Your task to perform on an android device: find snoozed emails in the gmail app Image 0: 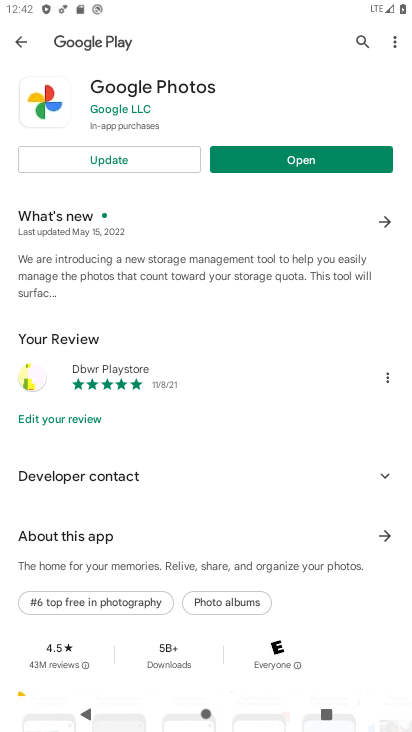
Step 0: press home button
Your task to perform on an android device: find snoozed emails in the gmail app Image 1: 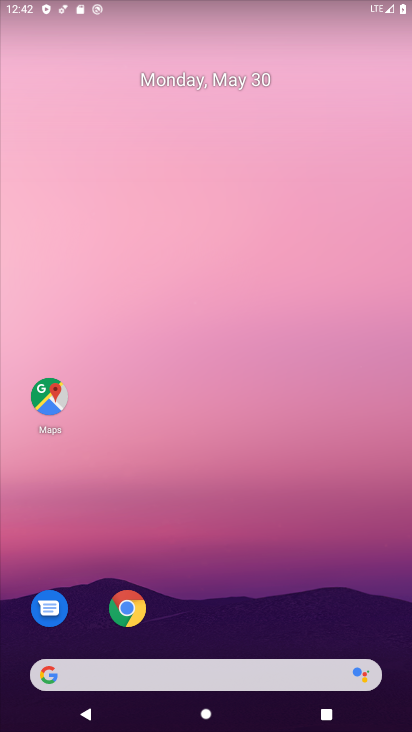
Step 1: drag from (203, 624) to (233, 29)
Your task to perform on an android device: find snoozed emails in the gmail app Image 2: 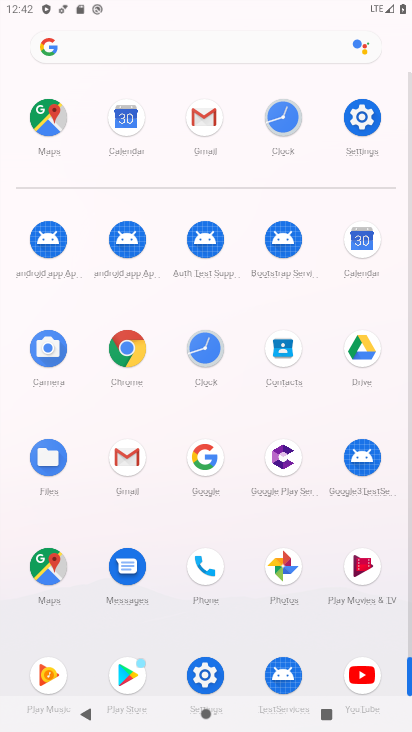
Step 2: click (122, 465)
Your task to perform on an android device: find snoozed emails in the gmail app Image 3: 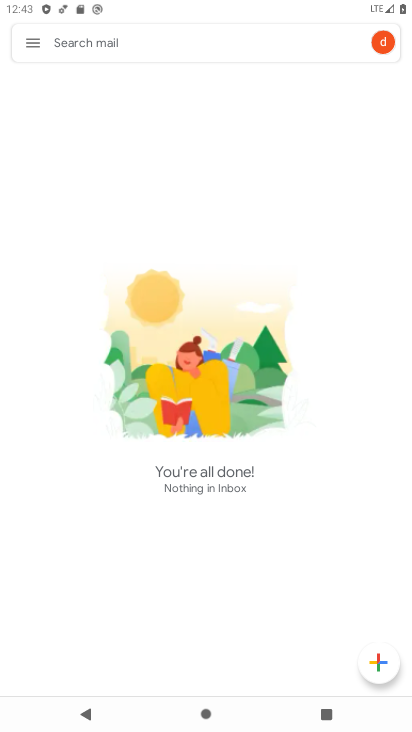
Step 3: click (30, 35)
Your task to perform on an android device: find snoozed emails in the gmail app Image 4: 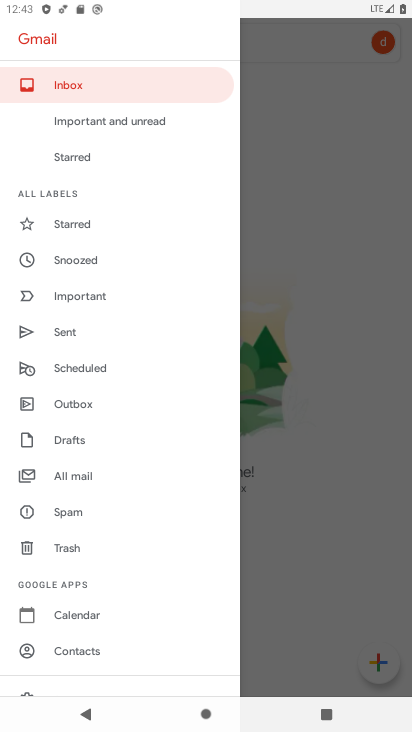
Step 4: drag from (82, 623) to (157, 112)
Your task to perform on an android device: find snoozed emails in the gmail app Image 5: 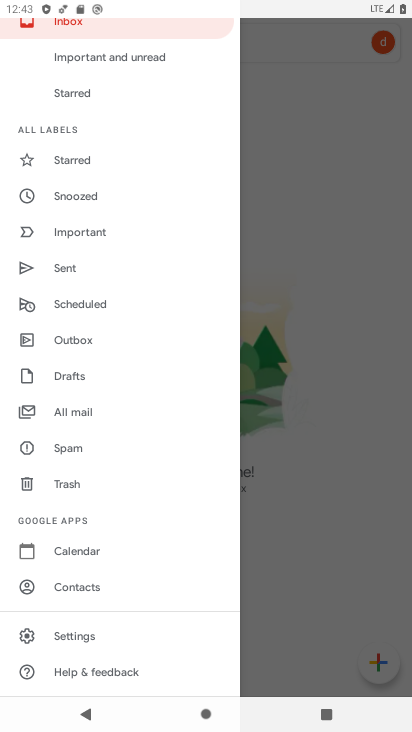
Step 5: click (86, 645)
Your task to perform on an android device: find snoozed emails in the gmail app Image 6: 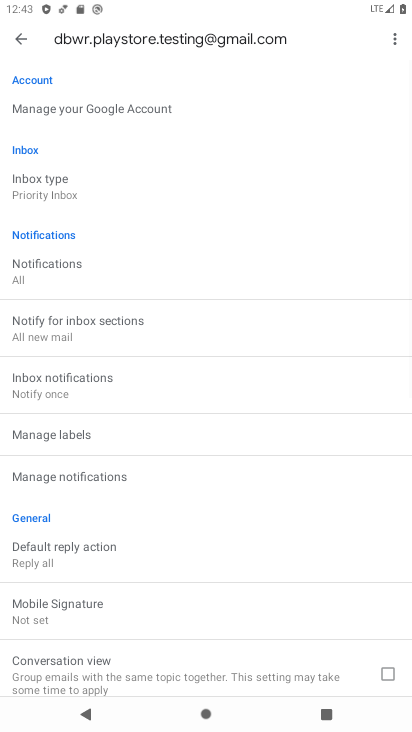
Step 6: click (18, 41)
Your task to perform on an android device: find snoozed emails in the gmail app Image 7: 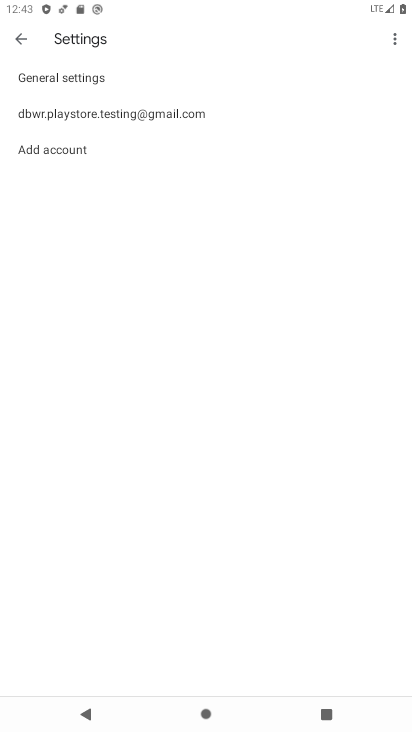
Step 7: click (22, 41)
Your task to perform on an android device: find snoozed emails in the gmail app Image 8: 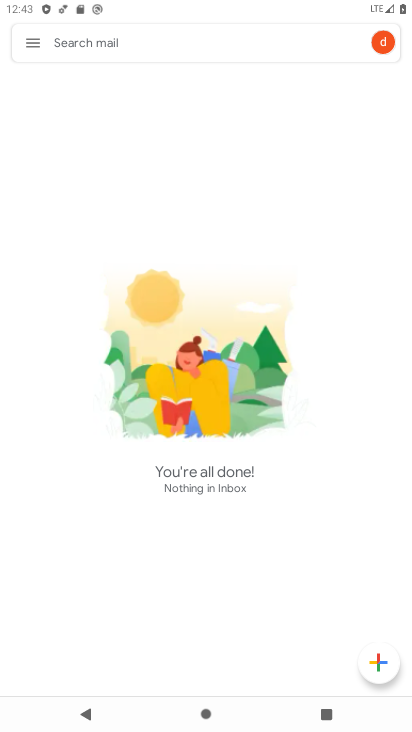
Step 8: click (21, 33)
Your task to perform on an android device: find snoozed emails in the gmail app Image 9: 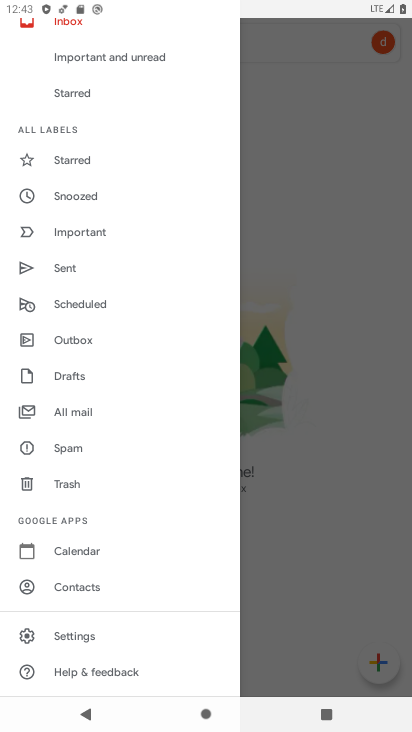
Step 9: drag from (113, 199) to (133, 320)
Your task to perform on an android device: find snoozed emails in the gmail app Image 10: 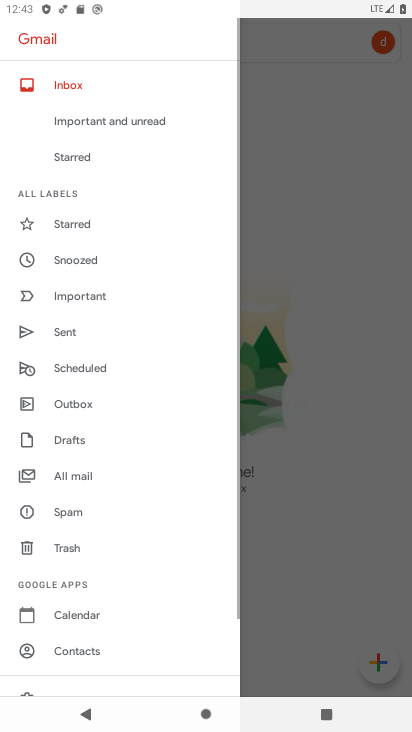
Step 10: click (96, 258)
Your task to perform on an android device: find snoozed emails in the gmail app Image 11: 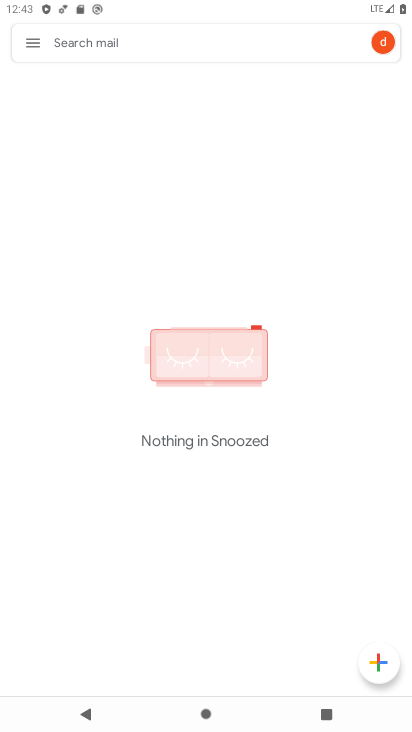
Step 11: task complete